Your task to perform on an android device: set the timer Image 0: 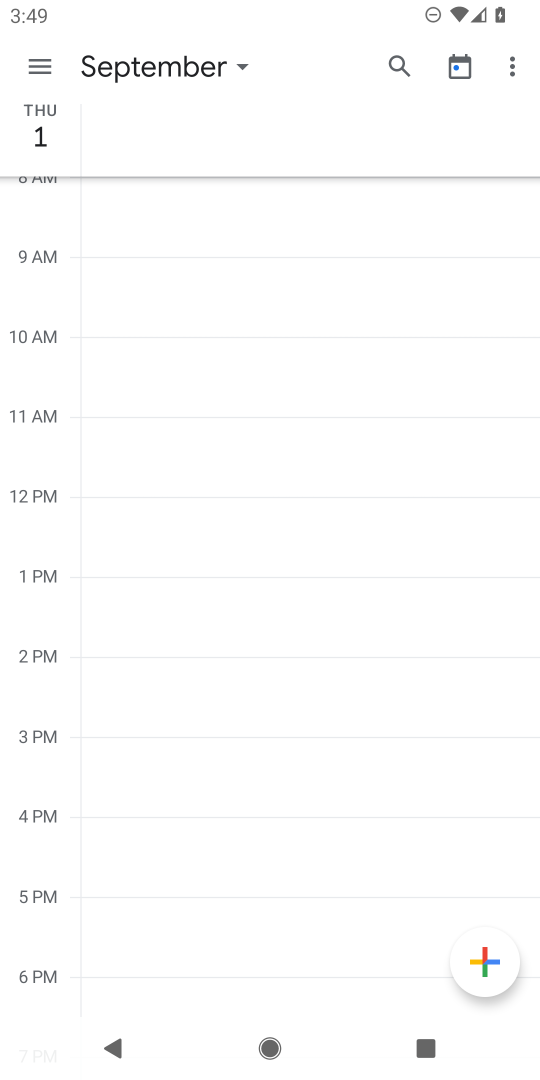
Step 0: press home button
Your task to perform on an android device: set the timer Image 1: 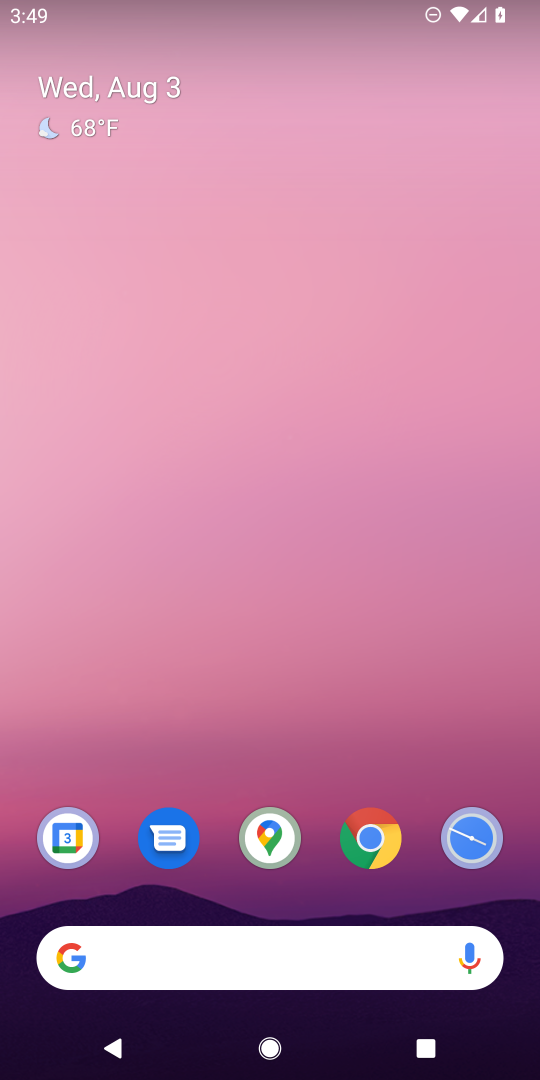
Step 1: click (469, 830)
Your task to perform on an android device: set the timer Image 2: 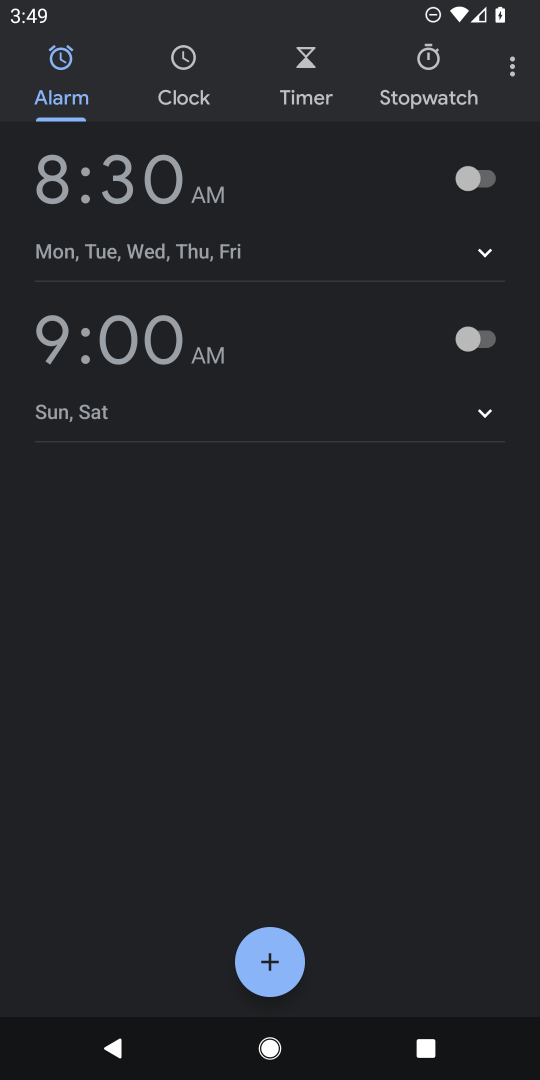
Step 2: click (302, 84)
Your task to perform on an android device: set the timer Image 3: 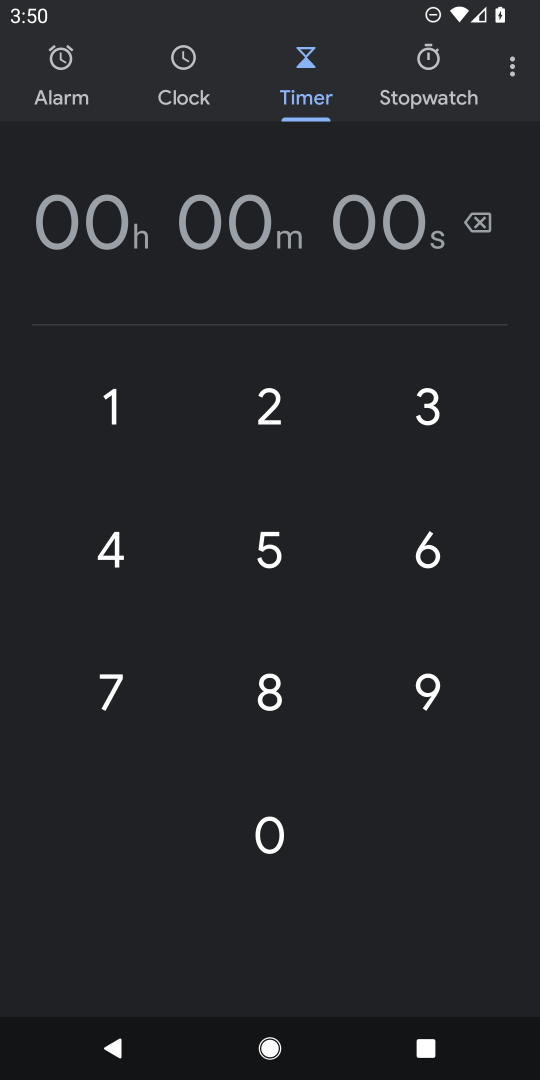
Step 3: click (246, 731)
Your task to perform on an android device: set the timer Image 4: 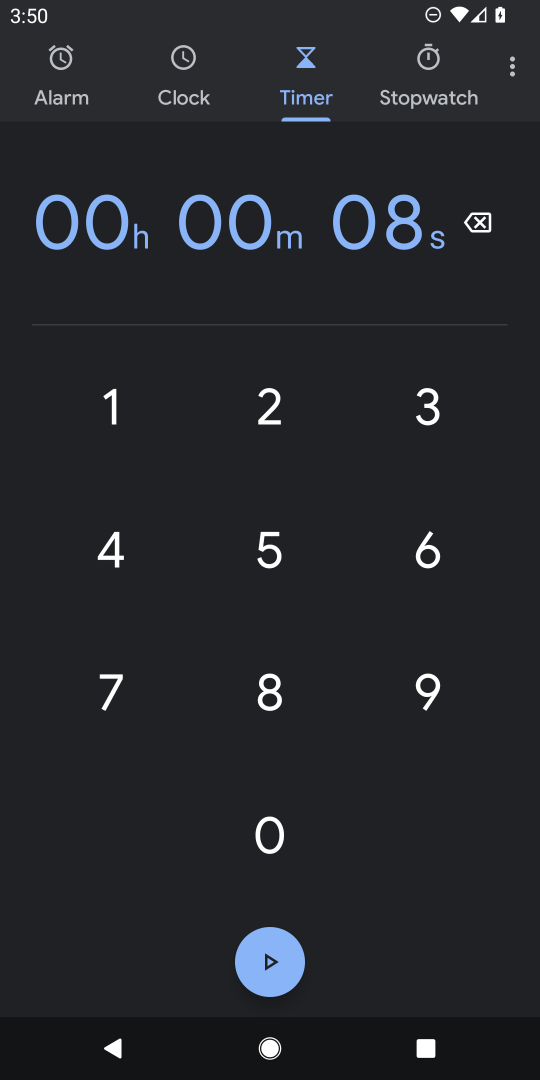
Step 4: click (389, 575)
Your task to perform on an android device: set the timer Image 5: 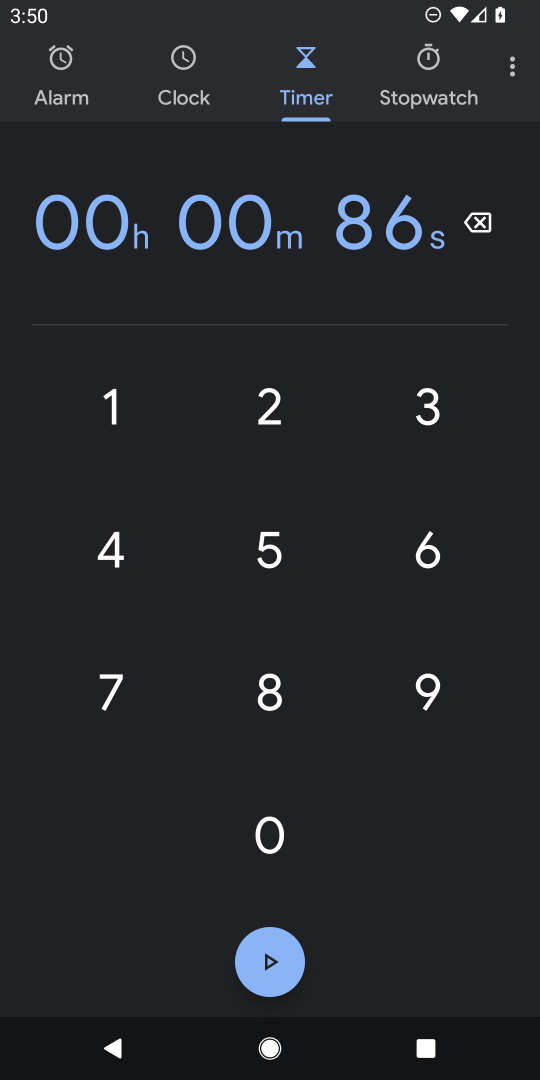
Step 5: click (172, 557)
Your task to perform on an android device: set the timer Image 6: 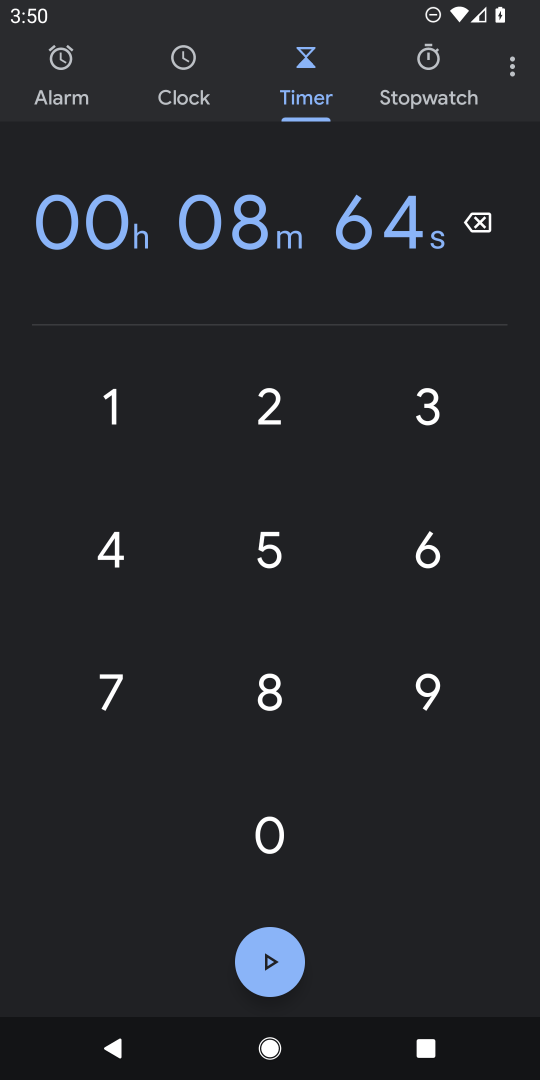
Step 6: click (312, 392)
Your task to perform on an android device: set the timer Image 7: 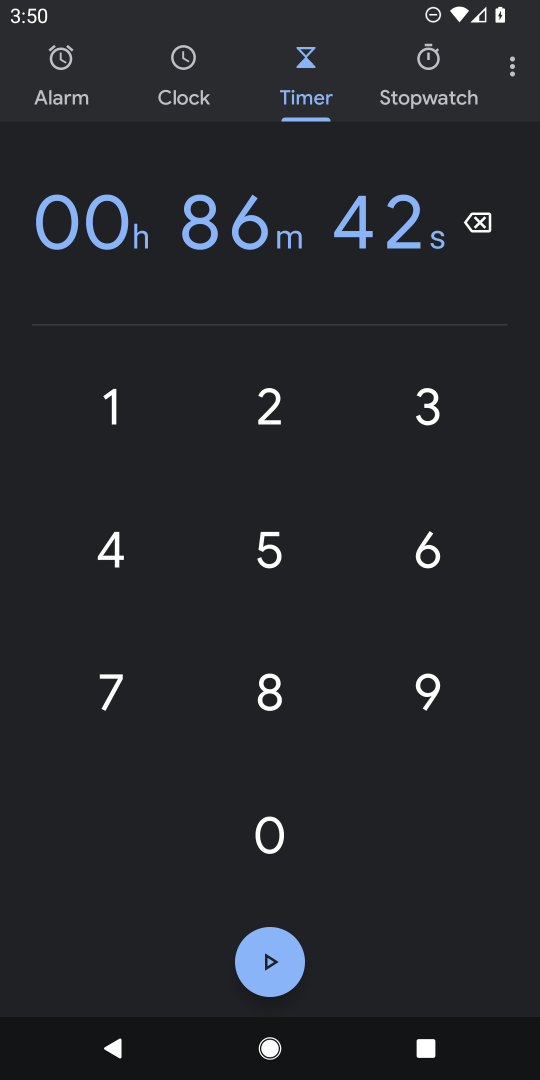
Step 7: click (408, 408)
Your task to perform on an android device: set the timer Image 8: 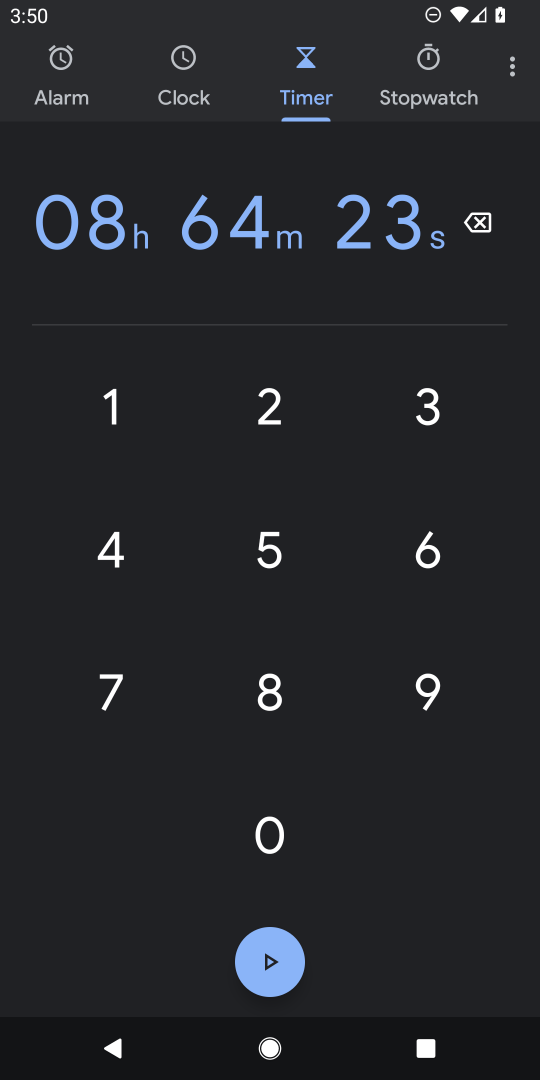
Step 8: click (262, 842)
Your task to perform on an android device: set the timer Image 9: 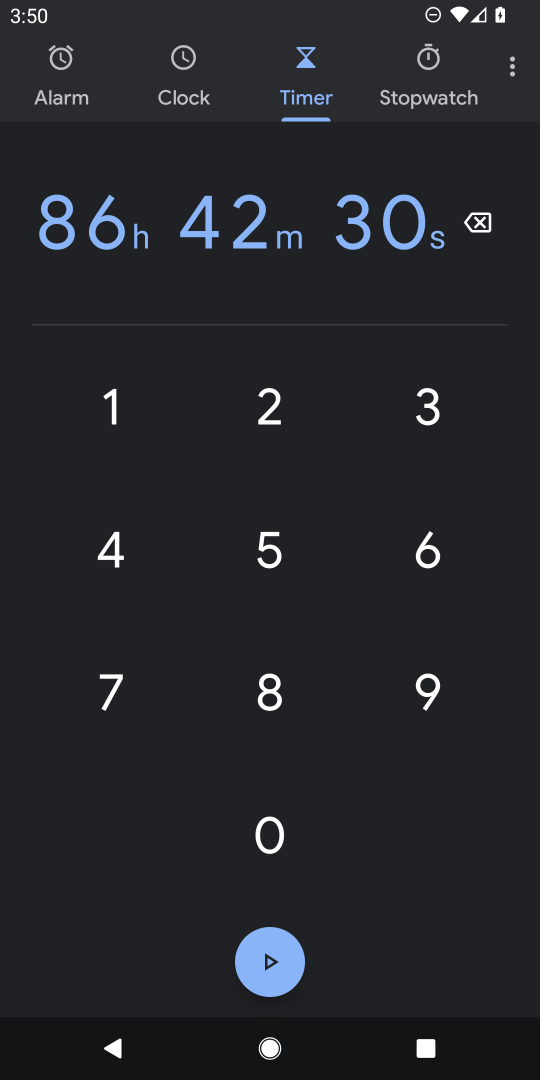
Step 9: click (280, 967)
Your task to perform on an android device: set the timer Image 10: 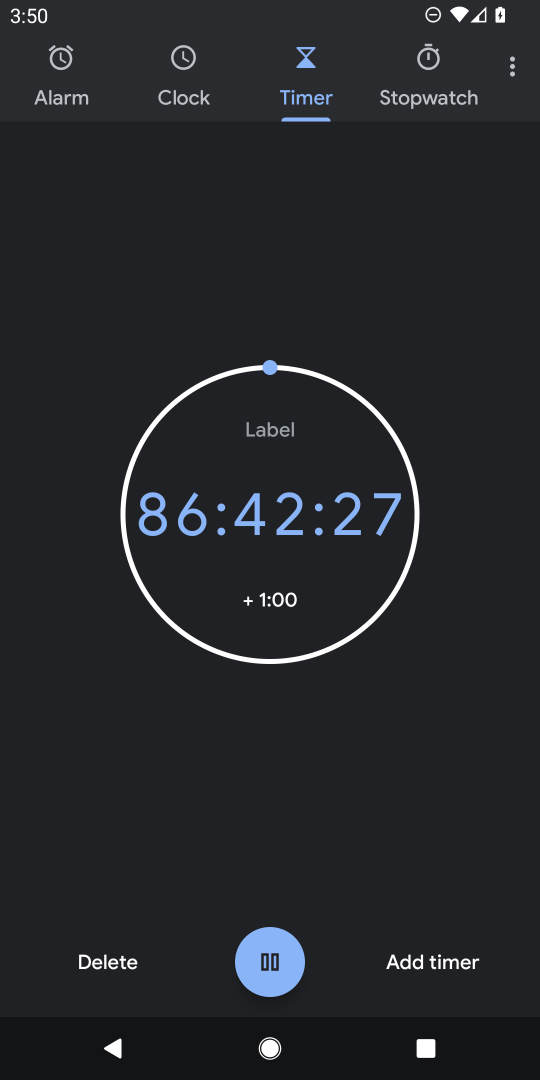
Step 10: task complete